Your task to perform on an android device: snooze an email in the gmail app Image 0: 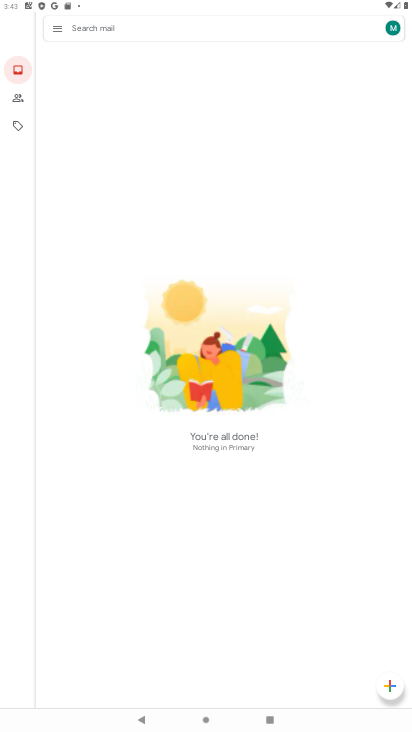
Step 0: click (55, 25)
Your task to perform on an android device: snooze an email in the gmail app Image 1: 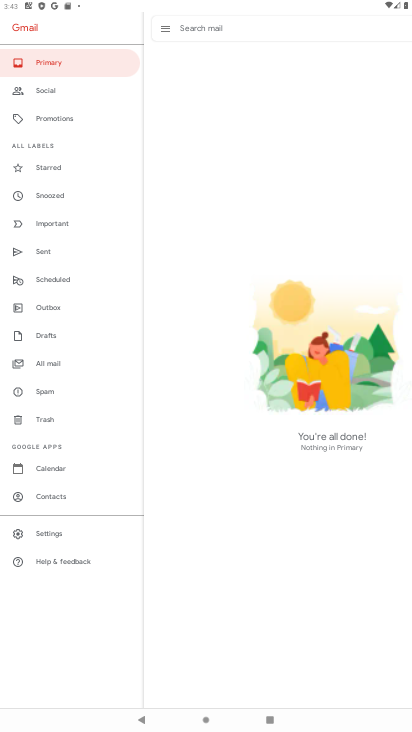
Step 1: click (64, 61)
Your task to perform on an android device: snooze an email in the gmail app Image 2: 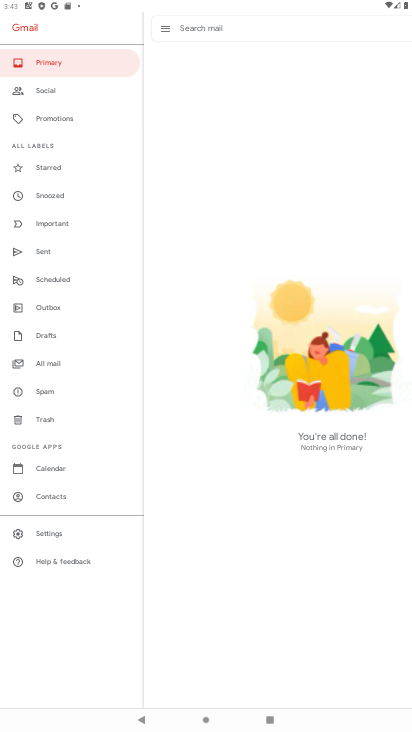
Step 2: task complete